Your task to perform on an android device: check android version Image 0: 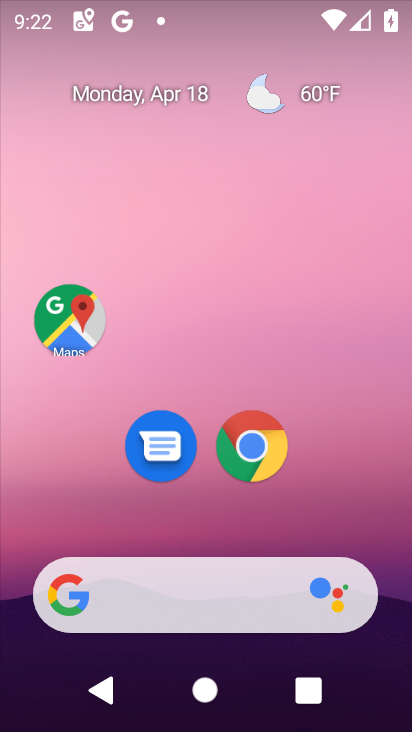
Step 0: drag from (389, 529) to (390, 140)
Your task to perform on an android device: check android version Image 1: 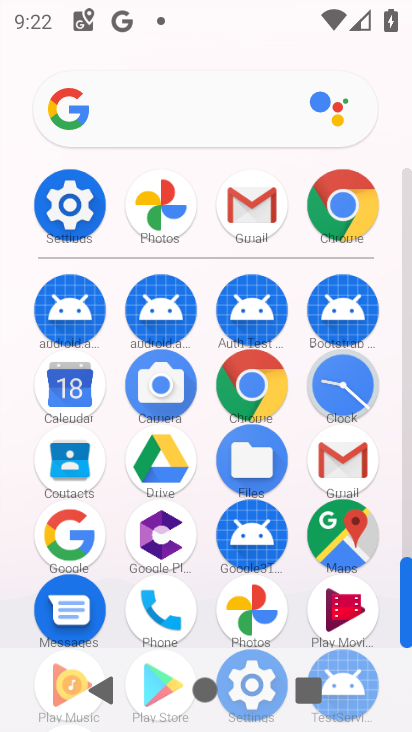
Step 1: click (64, 215)
Your task to perform on an android device: check android version Image 2: 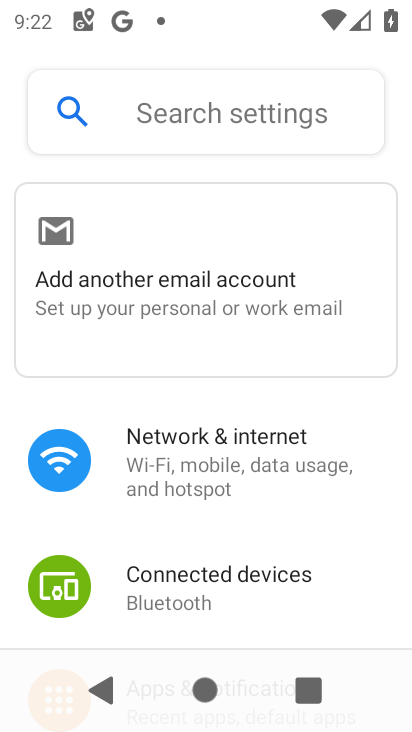
Step 2: drag from (375, 599) to (375, 356)
Your task to perform on an android device: check android version Image 3: 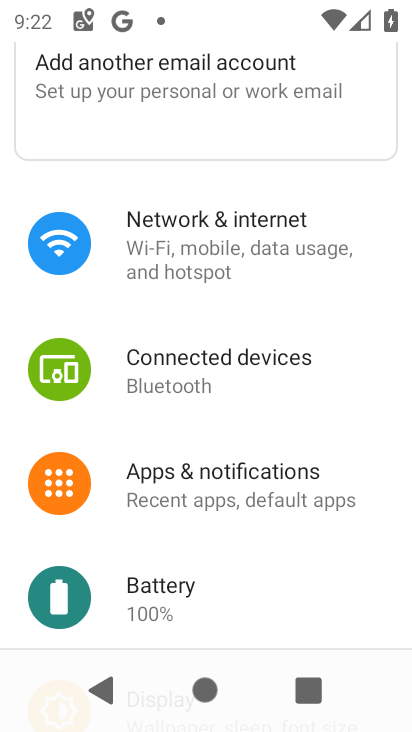
Step 3: drag from (373, 588) to (375, 352)
Your task to perform on an android device: check android version Image 4: 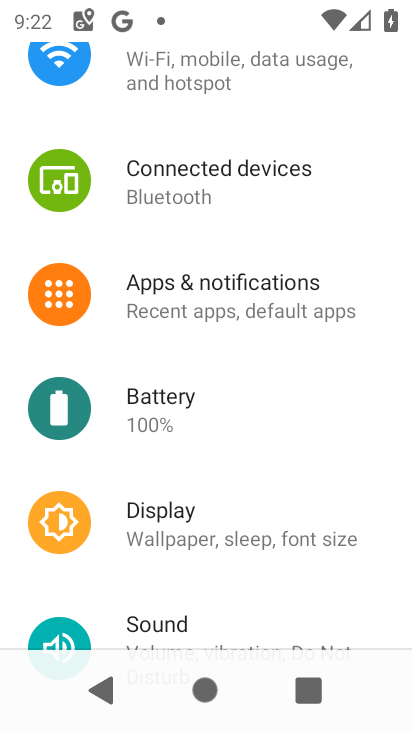
Step 4: drag from (362, 576) to (354, 373)
Your task to perform on an android device: check android version Image 5: 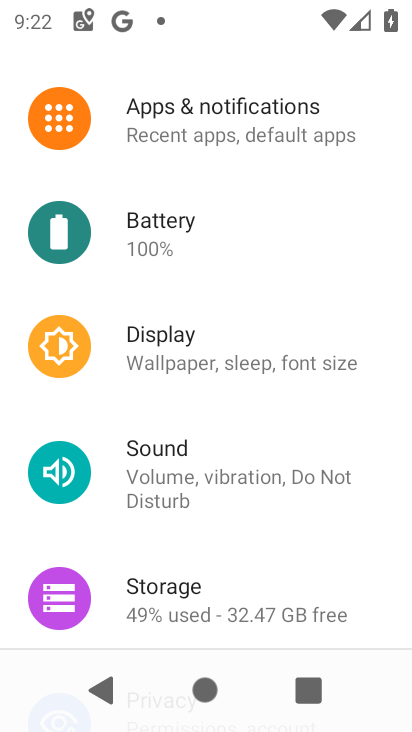
Step 5: drag from (377, 590) to (379, 377)
Your task to perform on an android device: check android version Image 6: 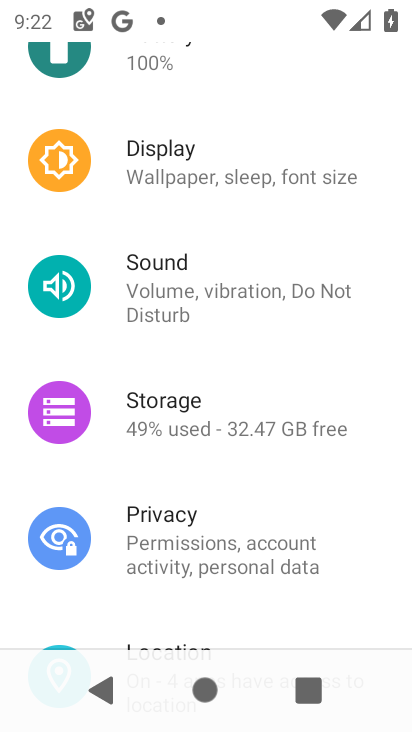
Step 6: drag from (376, 574) to (382, 346)
Your task to perform on an android device: check android version Image 7: 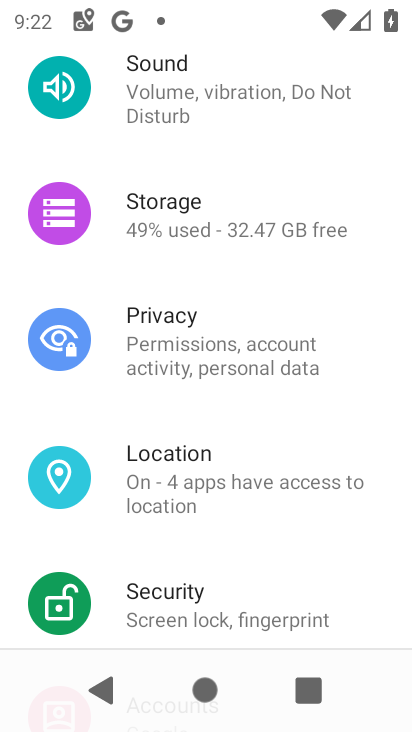
Step 7: drag from (365, 604) to (361, 408)
Your task to perform on an android device: check android version Image 8: 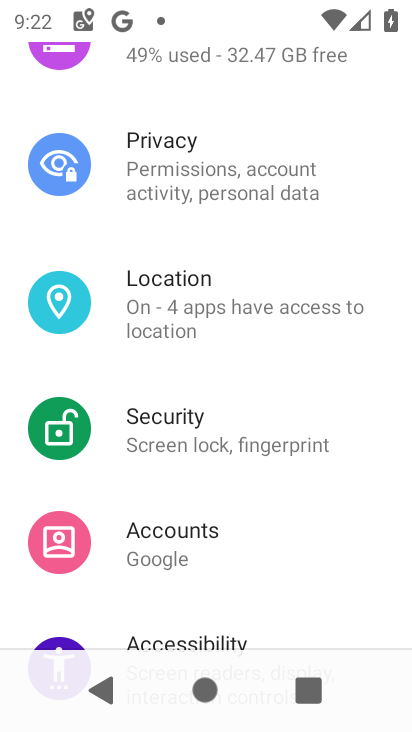
Step 8: drag from (370, 575) to (372, 395)
Your task to perform on an android device: check android version Image 9: 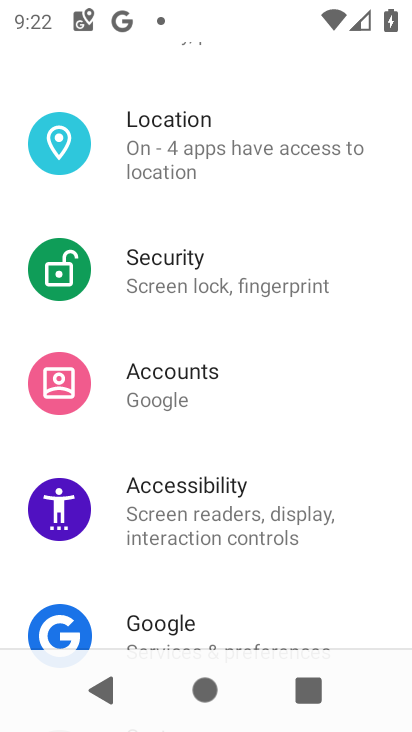
Step 9: drag from (367, 584) to (366, 394)
Your task to perform on an android device: check android version Image 10: 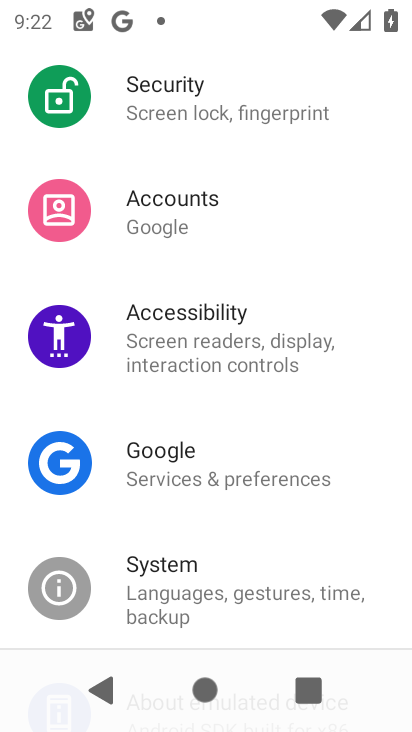
Step 10: drag from (369, 616) to (372, 400)
Your task to perform on an android device: check android version Image 11: 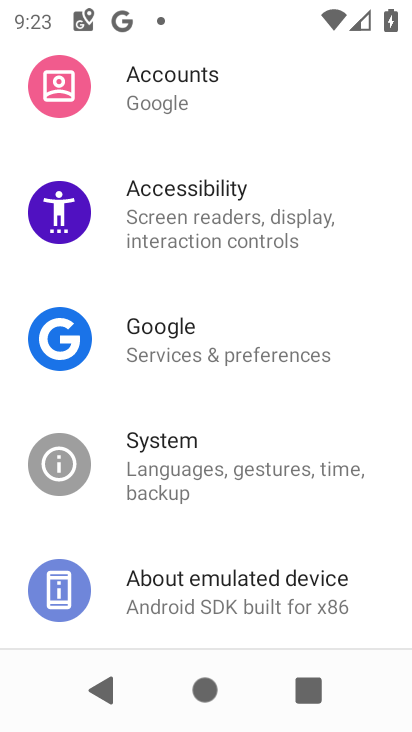
Step 11: click (263, 478)
Your task to perform on an android device: check android version Image 12: 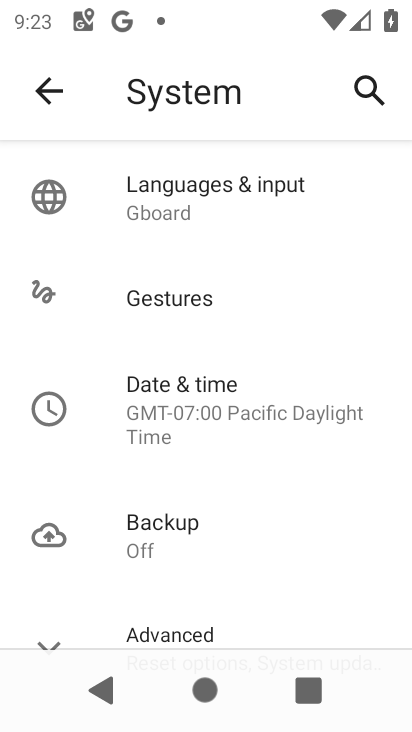
Step 12: drag from (360, 563) to (356, 333)
Your task to perform on an android device: check android version Image 13: 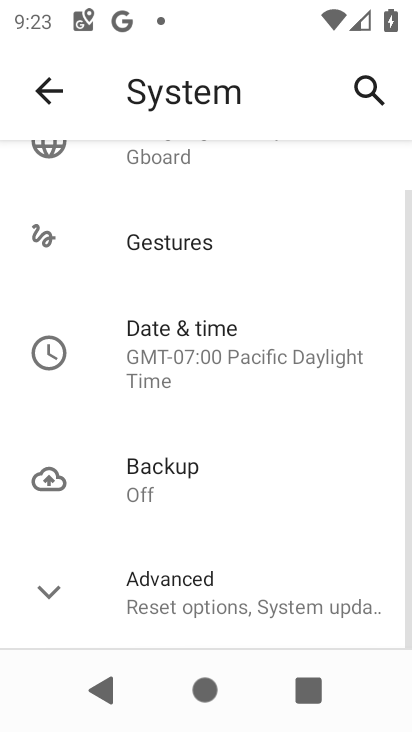
Step 13: click (270, 592)
Your task to perform on an android device: check android version Image 14: 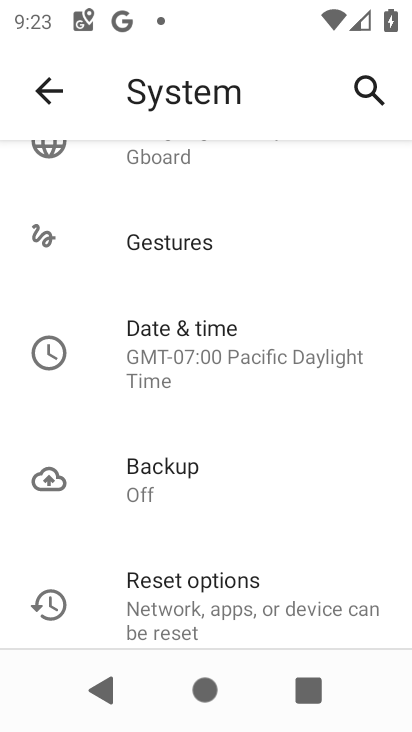
Step 14: drag from (363, 525) to (358, 285)
Your task to perform on an android device: check android version Image 15: 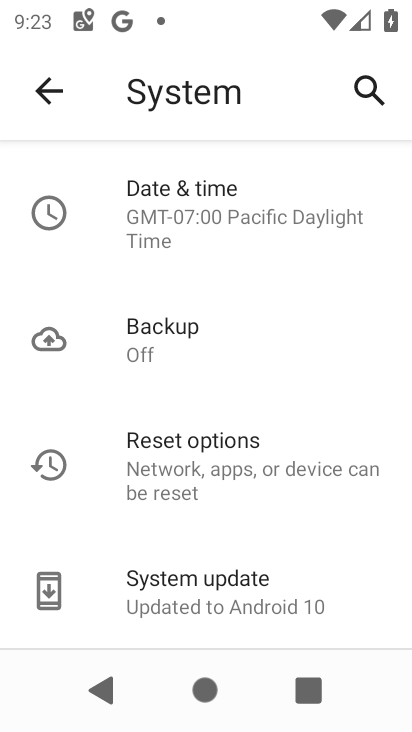
Step 15: click (212, 602)
Your task to perform on an android device: check android version Image 16: 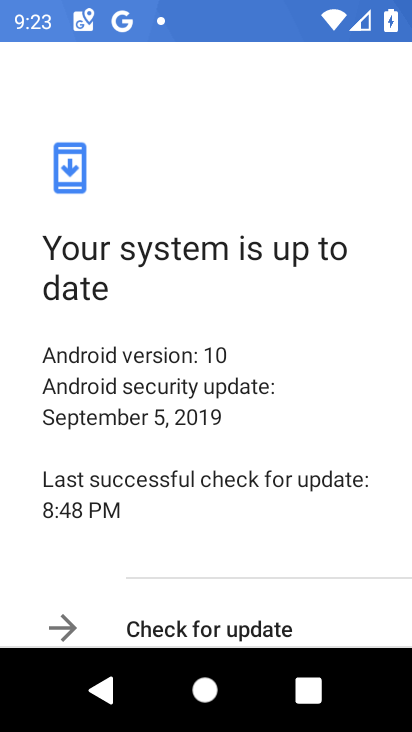
Step 16: task complete